Your task to perform on an android device: clear history in the chrome app Image 0: 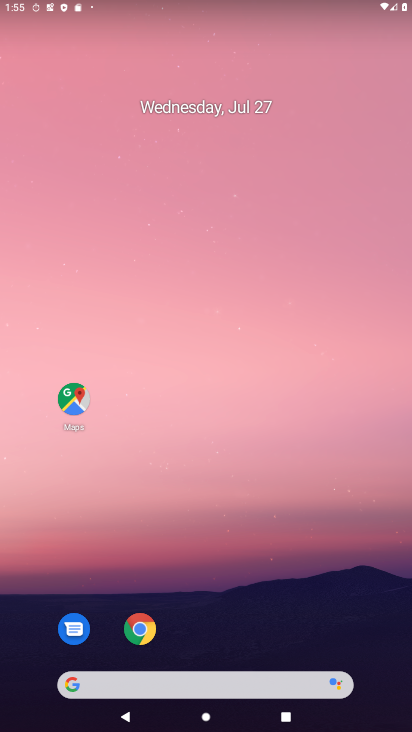
Step 0: drag from (383, 658) to (83, 12)
Your task to perform on an android device: clear history in the chrome app Image 1: 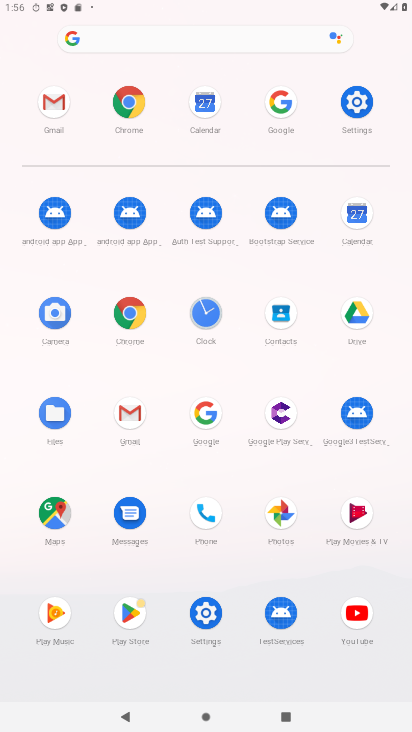
Step 1: click (147, 315)
Your task to perform on an android device: clear history in the chrome app Image 2: 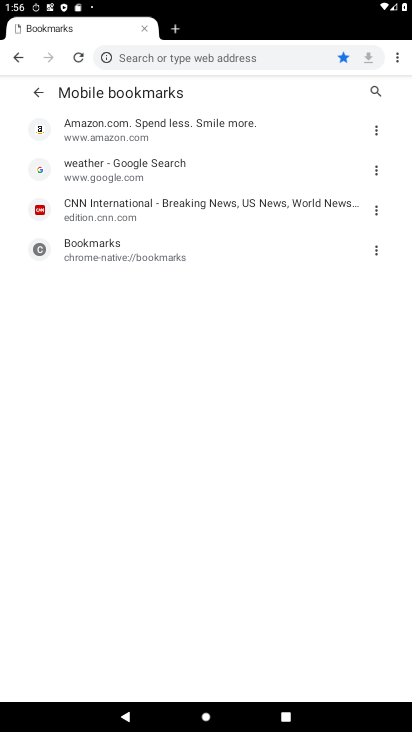
Step 2: click (400, 57)
Your task to perform on an android device: clear history in the chrome app Image 3: 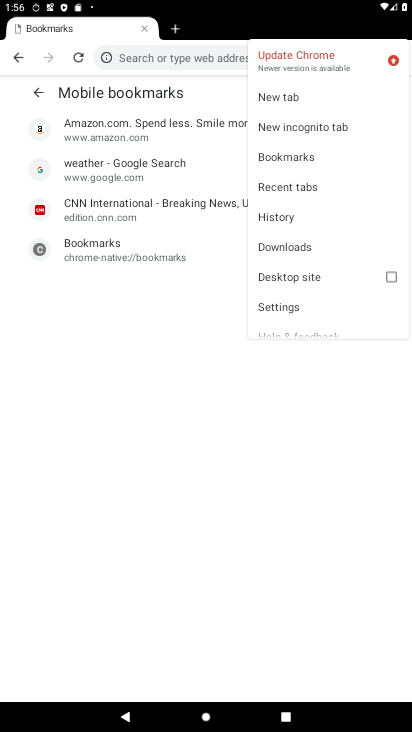
Step 3: click (286, 219)
Your task to perform on an android device: clear history in the chrome app Image 4: 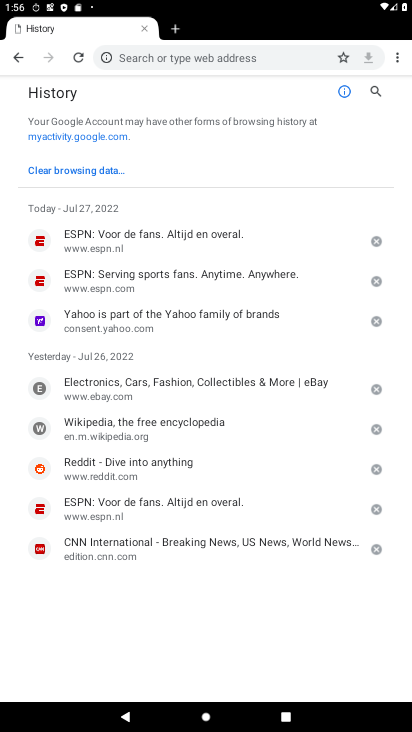
Step 4: click (59, 166)
Your task to perform on an android device: clear history in the chrome app Image 5: 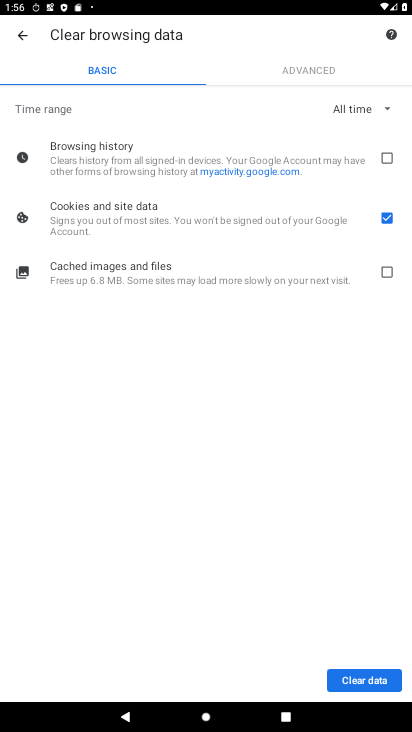
Step 5: click (384, 165)
Your task to perform on an android device: clear history in the chrome app Image 6: 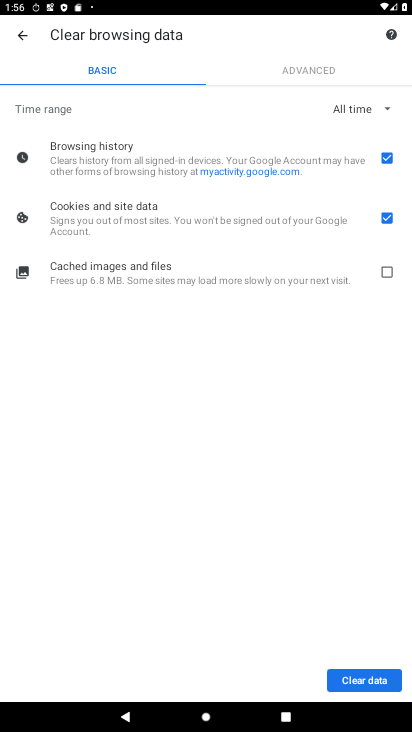
Step 6: click (372, 679)
Your task to perform on an android device: clear history in the chrome app Image 7: 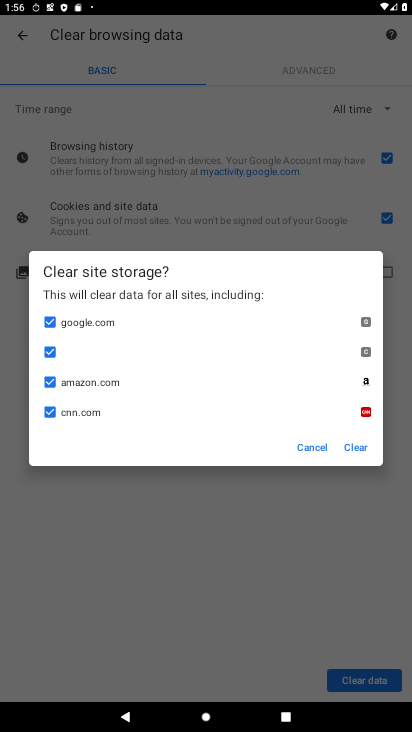
Step 7: click (350, 448)
Your task to perform on an android device: clear history in the chrome app Image 8: 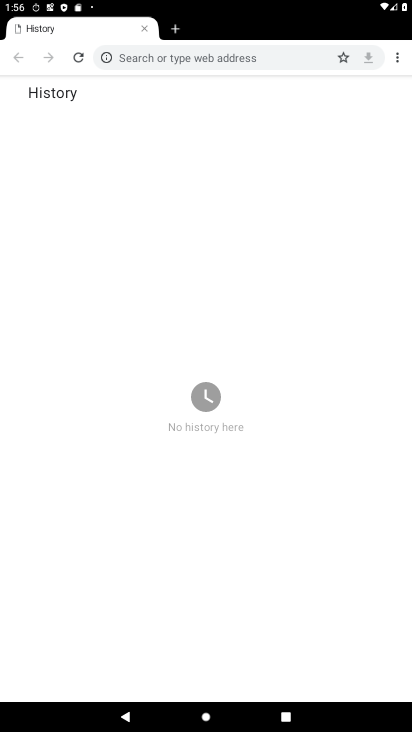
Step 8: task complete